Your task to perform on an android device: What is the recent news? Image 0: 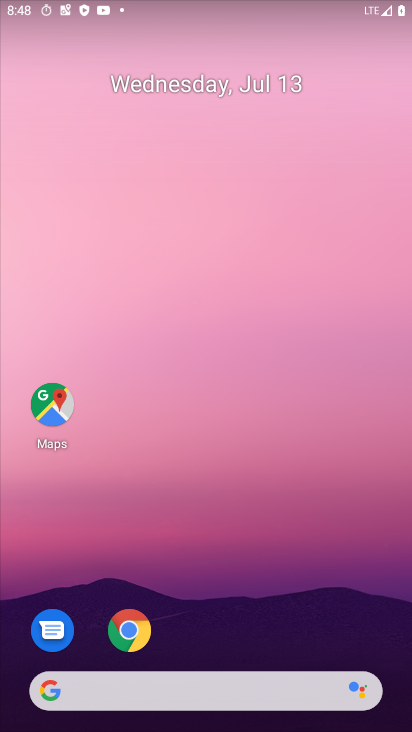
Step 0: drag from (1, 283) to (411, 404)
Your task to perform on an android device: What is the recent news? Image 1: 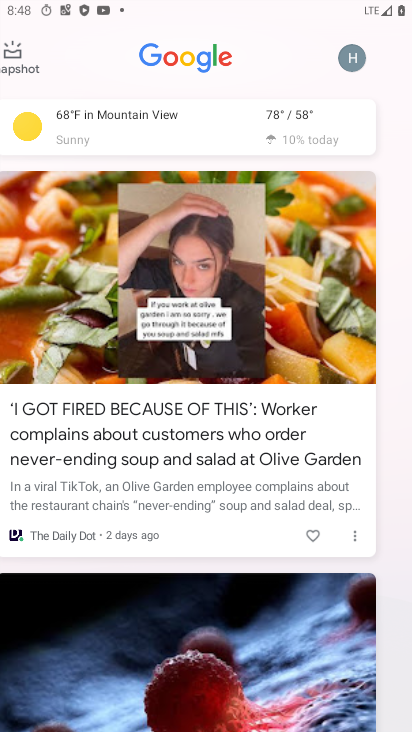
Step 1: task complete